Your task to perform on an android device: change your default location settings in chrome Image 0: 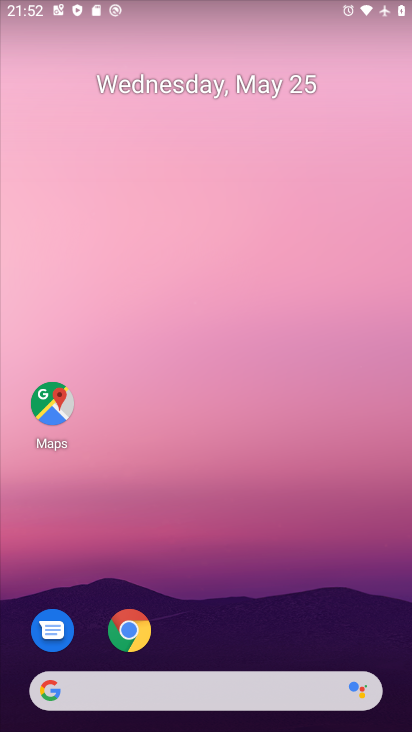
Step 0: click (124, 635)
Your task to perform on an android device: change your default location settings in chrome Image 1: 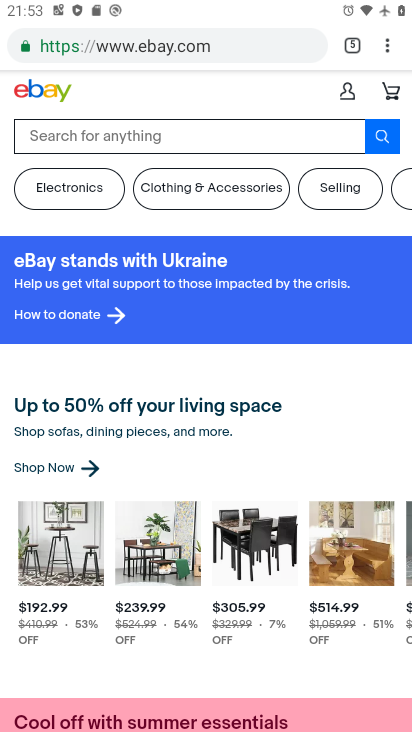
Step 1: click (384, 44)
Your task to perform on an android device: change your default location settings in chrome Image 2: 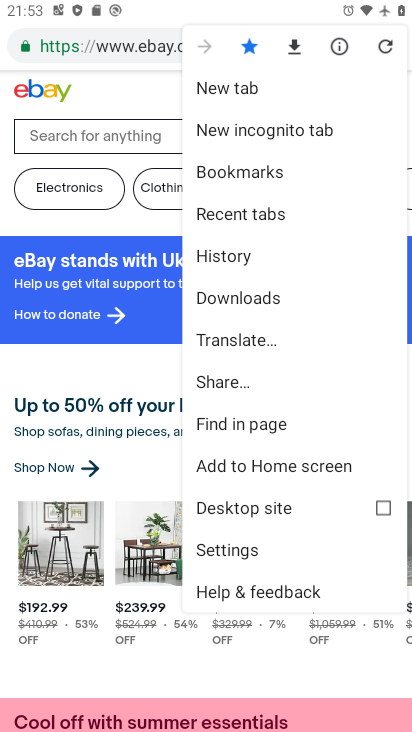
Step 2: click (236, 554)
Your task to perform on an android device: change your default location settings in chrome Image 3: 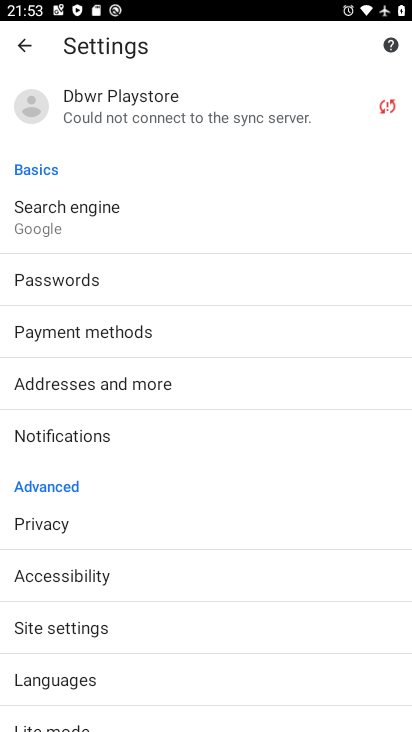
Step 3: click (89, 613)
Your task to perform on an android device: change your default location settings in chrome Image 4: 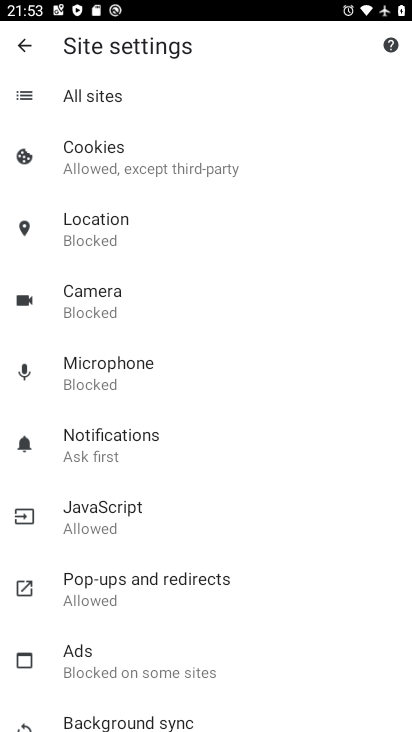
Step 4: click (146, 247)
Your task to perform on an android device: change your default location settings in chrome Image 5: 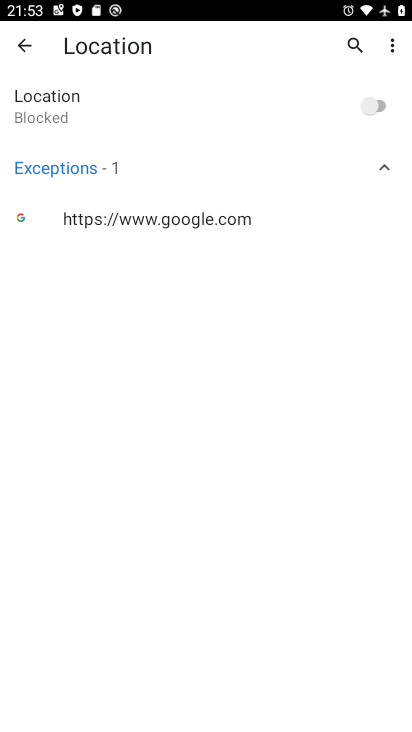
Step 5: click (377, 107)
Your task to perform on an android device: change your default location settings in chrome Image 6: 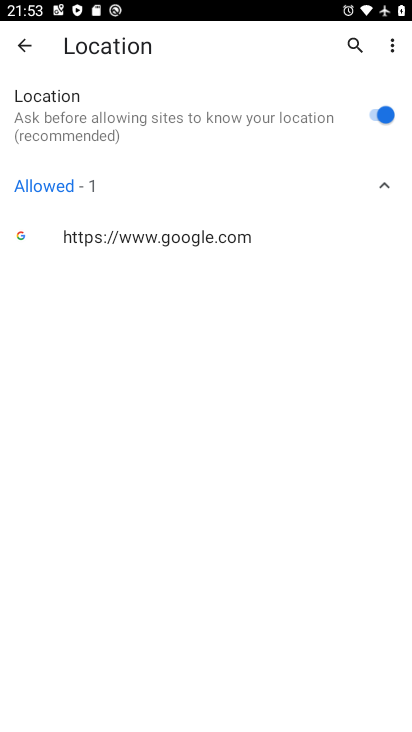
Step 6: task complete